Your task to perform on an android device: turn pop-ups off in chrome Image 0: 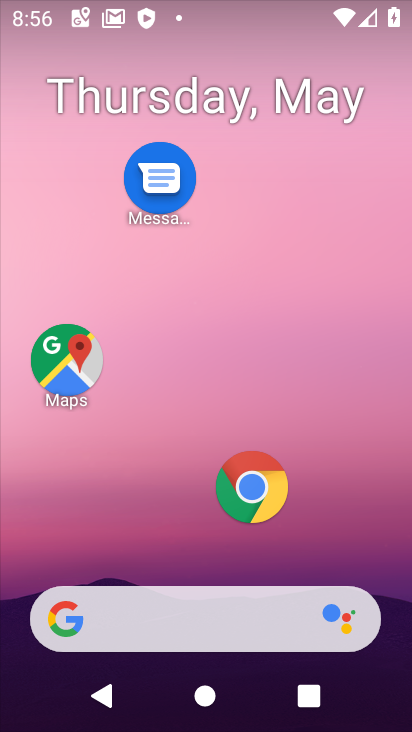
Step 0: click (273, 464)
Your task to perform on an android device: turn pop-ups off in chrome Image 1: 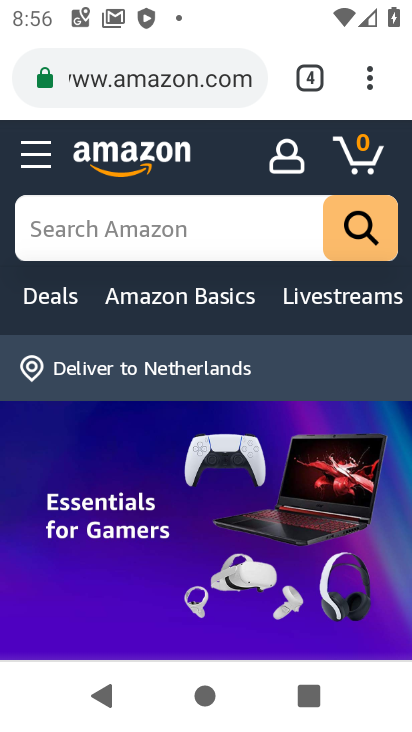
Step 1: click (373, 87)
Your task to perform on an android device: turn pop-ups off in chrome Image 2: 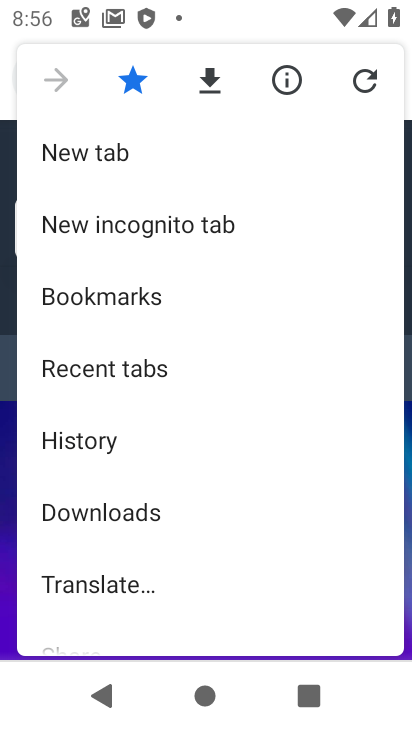
Step 2: drag from (234, 562) to (180, 255)
Your task to perform on an android device: turn pop-ups off in chrome Image 3: 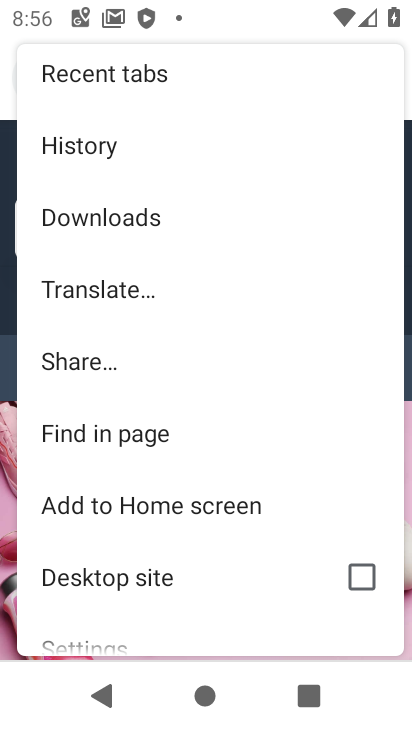
Step 3: click (76, 635)
Your task to perform on an android device: turn pop-ups off in chrome Image 4: 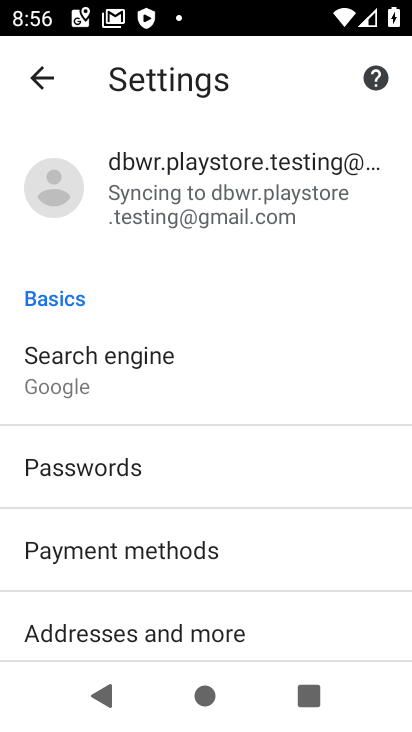
Step 4: drag from (345, 621) to (293, 44)
Your task to perform on an android device: turn pop-ups off in chrome Image 5: 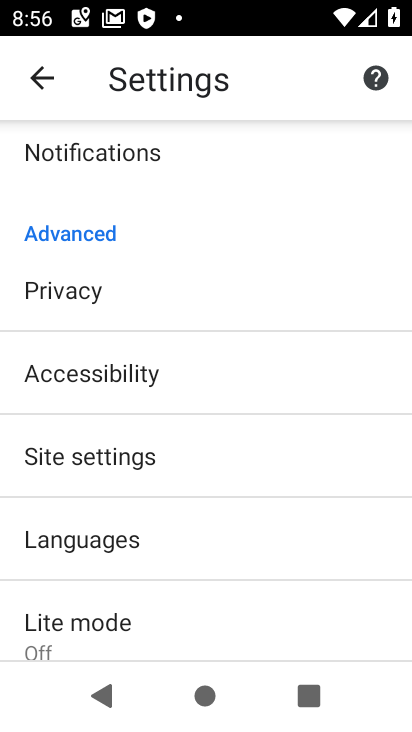
Step 5: click (80, 443)
Your task to perform on an android device: turn pop-ups off in chrome Image 6: 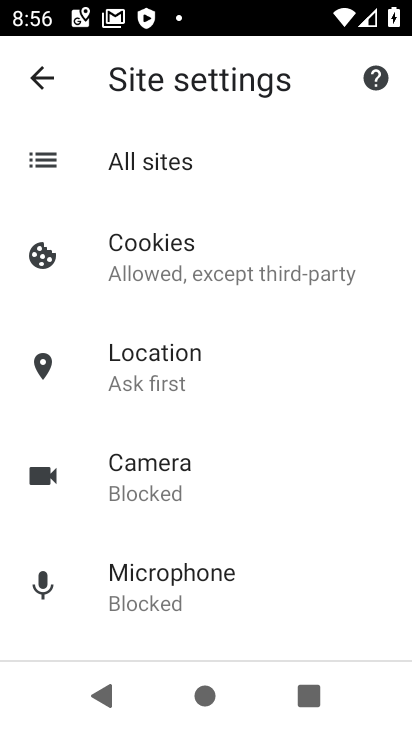
Step 6: drag from (341, 570) to (222, 48)
Your task to perform on an android device: turn pop-ups off in chrome Image 7: 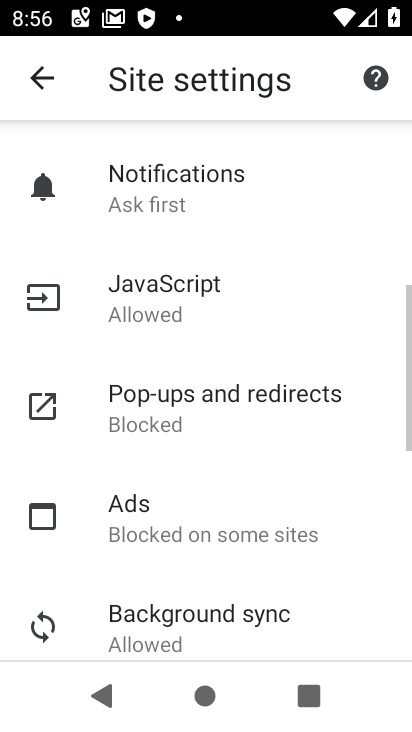
Step 7: click (155, 429)
Your task to perform on an android device: turn pop-ups off in chrome Image 8: 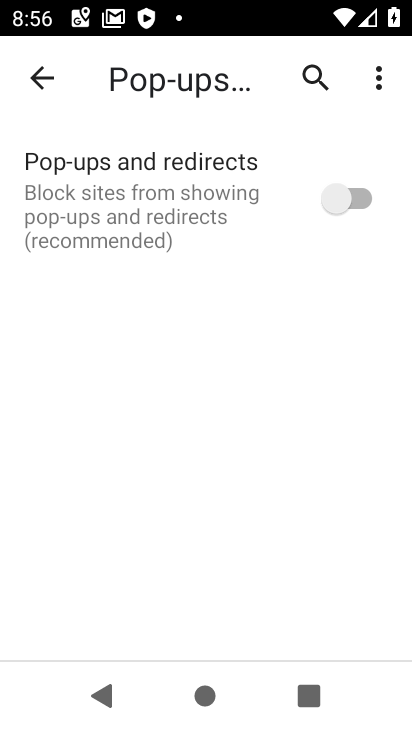
Step 8: click (346, 201)
Your task to perform on an android device: turn pop-ups off in chrome Image 9: 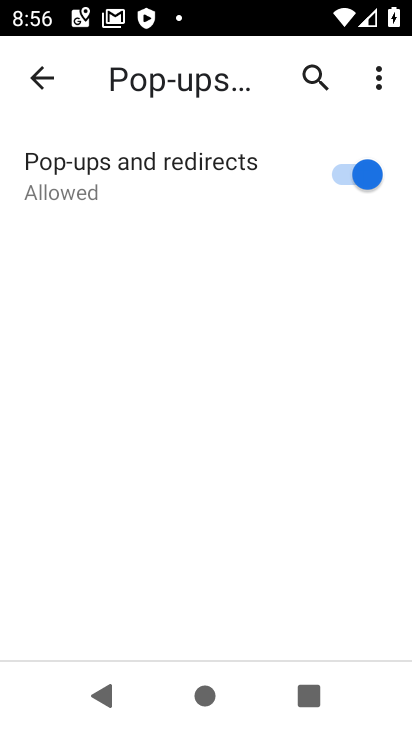
Step 9: click (346, 201)
Your task to perform on an android device: turn pop-ups off in chrome Image 10: 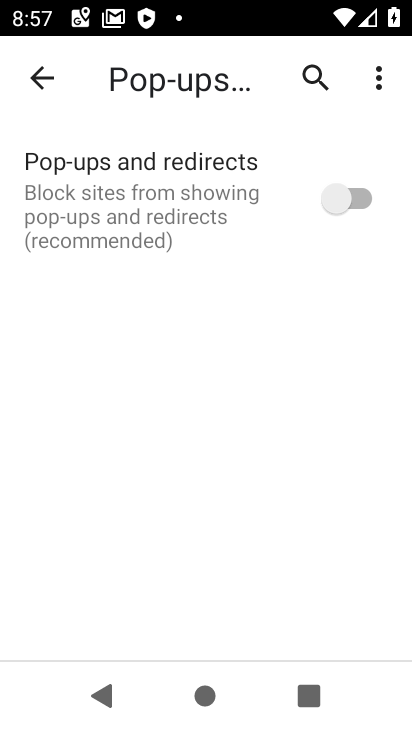
Step 10: task complete